Your task to perform on an android device: check battery use Image 0: 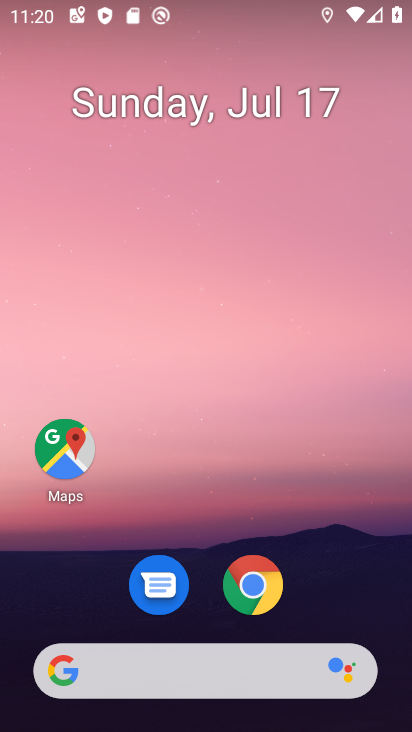
Step 0: drag from (244, 510) to (290, 5)
Your task to perform on an android device: check battery use Image 1: 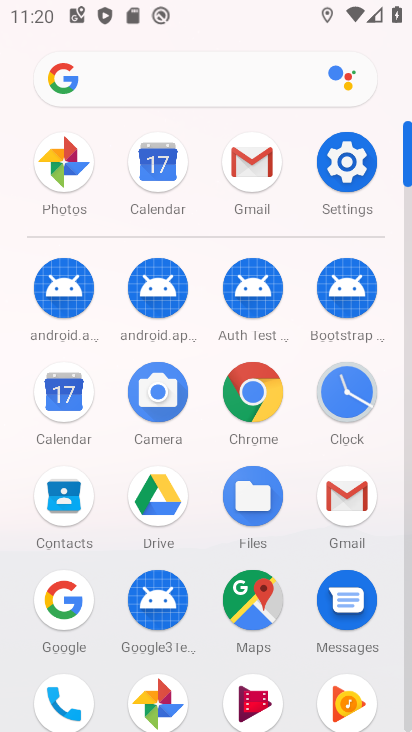
Step 1: click (356, 160)
Your task to perform on an android device: check battery use Image 2: 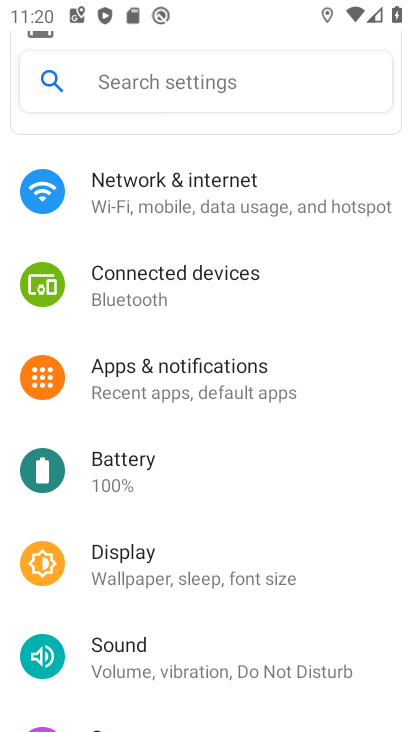
Step 2: click (133, 457)
Your task to perform on an android device: check battery use Image 3: 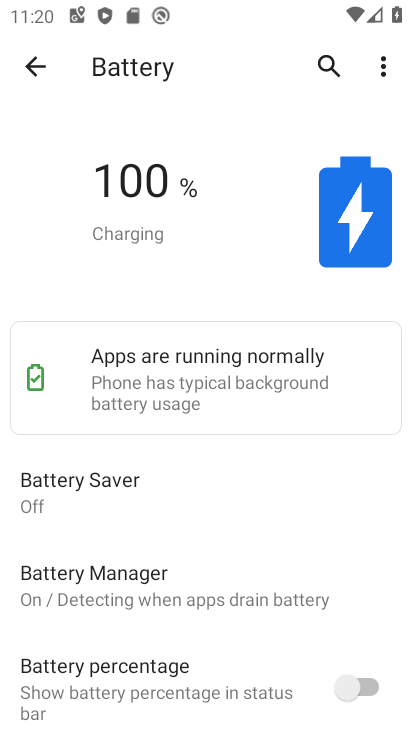
Step 3: click (386, 58)
Your task to perform on an android device: check battery use Image 4: 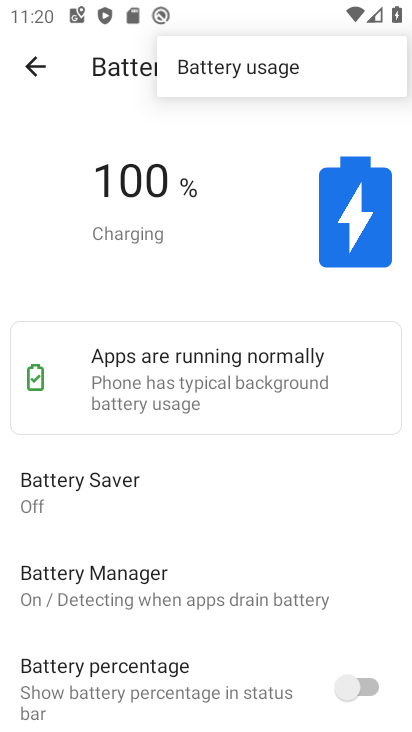
Step 4: click (181, 54)
Your task to perform on an android device: check battery use Image 5: 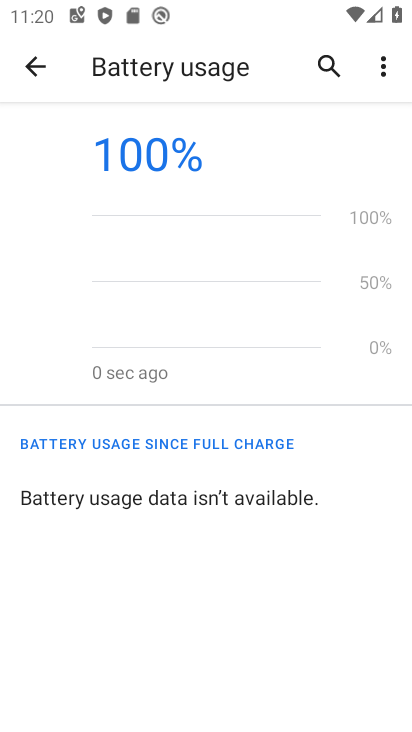
Step 5: task complete